Your task to perform on an android device: toggle priority inbox in the gmail app Image 0: 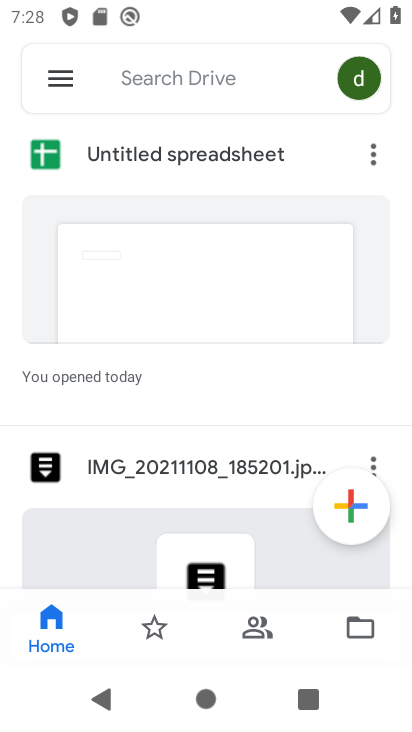
Step 0: press home button
Your task to perform on an android device: toggle priority inbox in the gmail app Image 1: 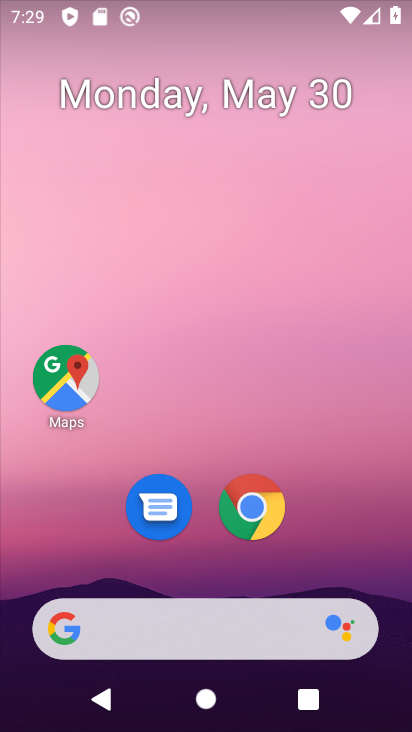
Step 1: drag from (394, 552) to (343, 177)
Your task to perform on an android device: toggle priority inbox in the gmail app Image 2: 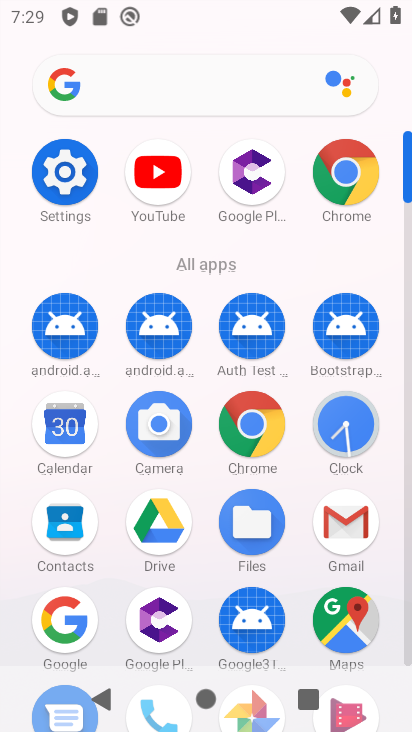
Step 2: click (339, 539)
Your task to perform on an android device: toggle priority inbox in the gmail app Image 3: 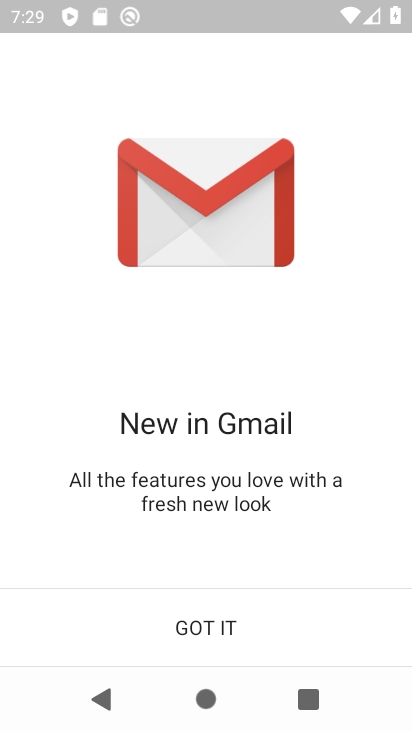
Step 3: click (191, 631)
Your task to perform on an android device: toggle priority inbox in the gmail app Image 4: 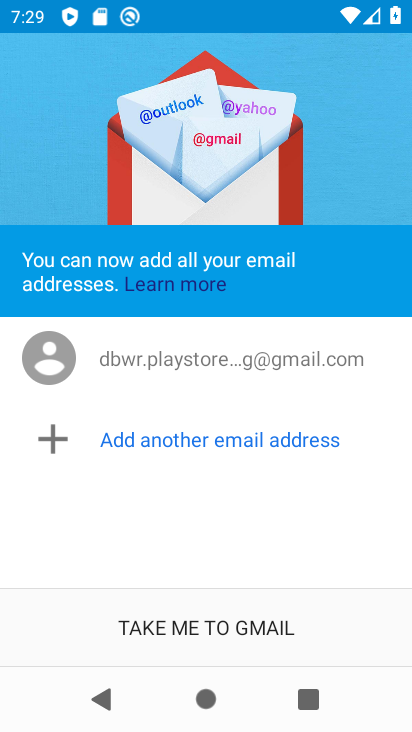
Step 4: click (191, 621)
Your task to perform on an android device: toggle priority inbox in the gmail app Image 5: 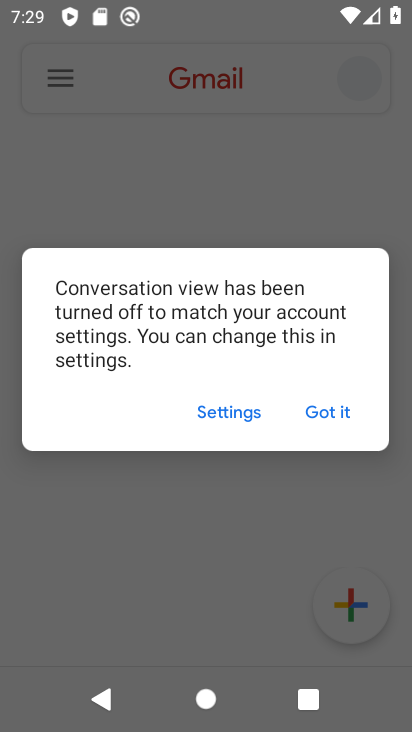
Step 5: click (331, 408)
Your task to perform on an android device: toggle priority inbox in the gmail app Image 6: 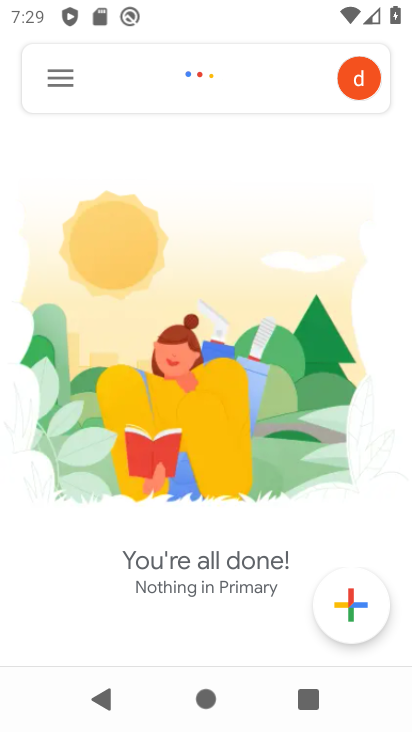
Step 6: click (56, 71)
Your task to perform on an android device: toggle priority inbox in the gmail app Image 7: 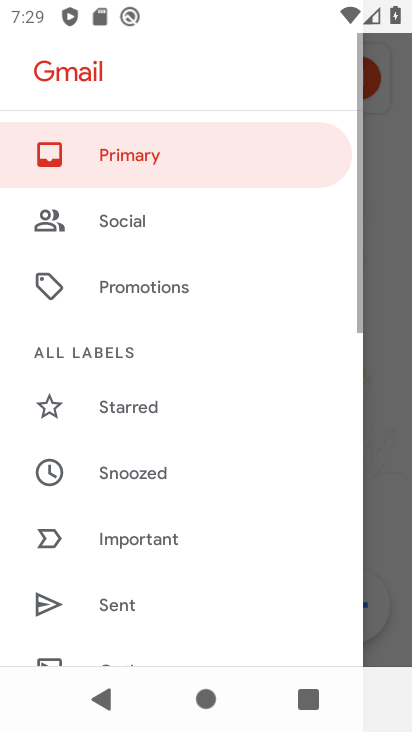
Step 7: drag from (199, 643) to (196, 164)
Your task to perform on an android device: toggle priority inbox in the gmail app Image 8: 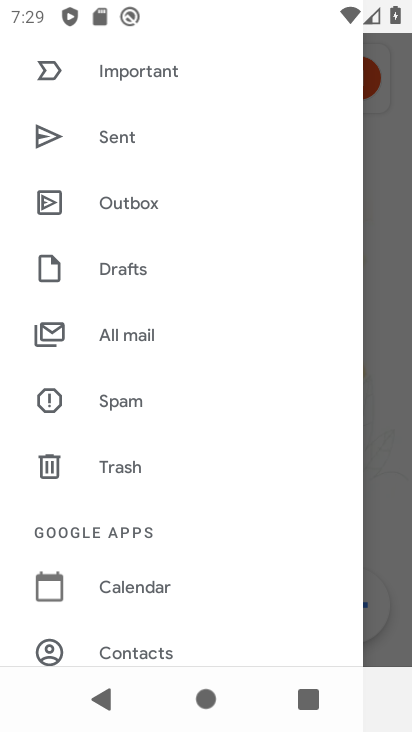
Step 8: drag from (160, 617) to (182, 318)
Your task to perform on an android device: toggle priority inbox in the gmail app Image 9: 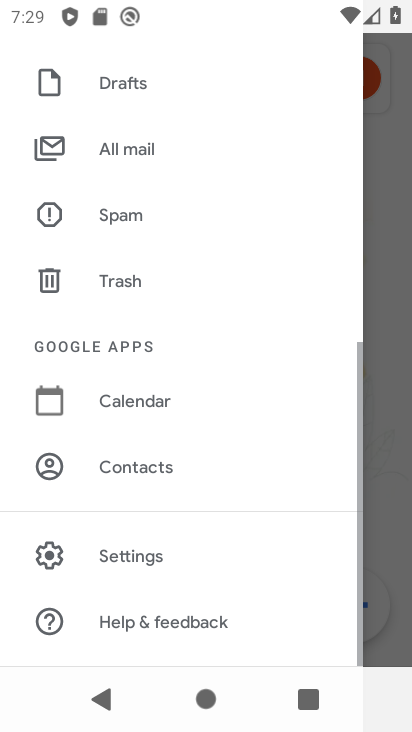
Step 9: click (145, 564)
Your task to perform on an android device: toggle priority inbox in the gmail app Image 10: 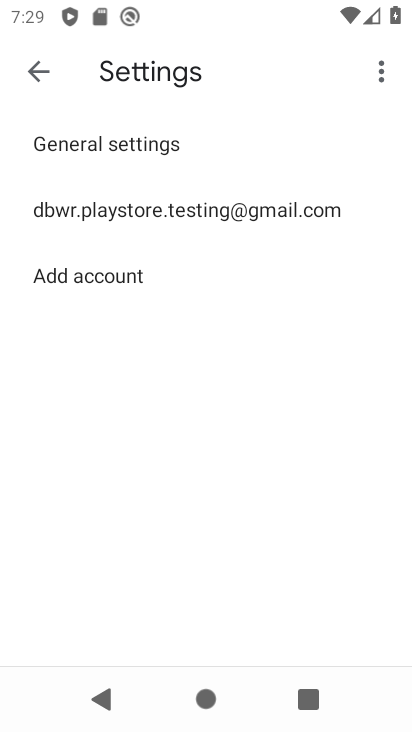
Step 10: click (326, 195)
Your task to perform on an android device: toggle priority inbox in the gmail app Image 11: 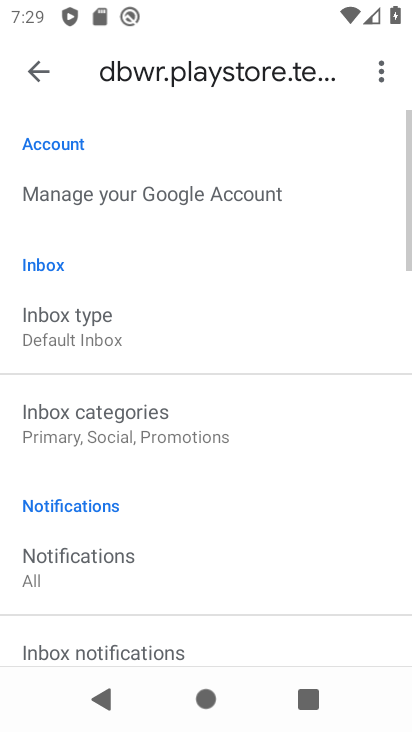
Step 11: click (136, 339)
Your task to perform on an android device: toggle priority inbox in the gmail app Image 12: 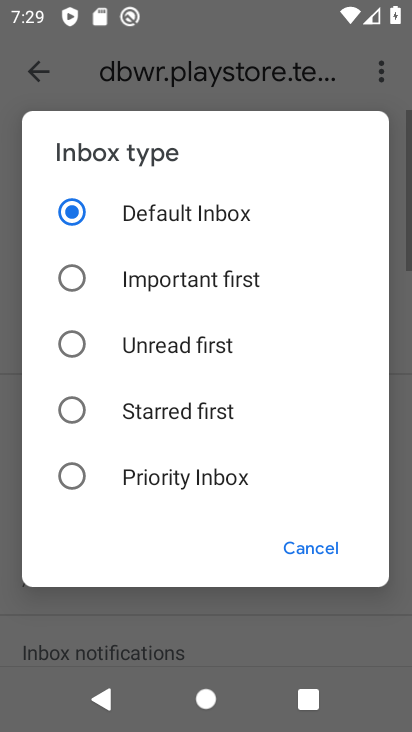
Step 12: click (131, 458)
Your task to perform on an android device: toggle priority inbox in the gmail app Image 13: 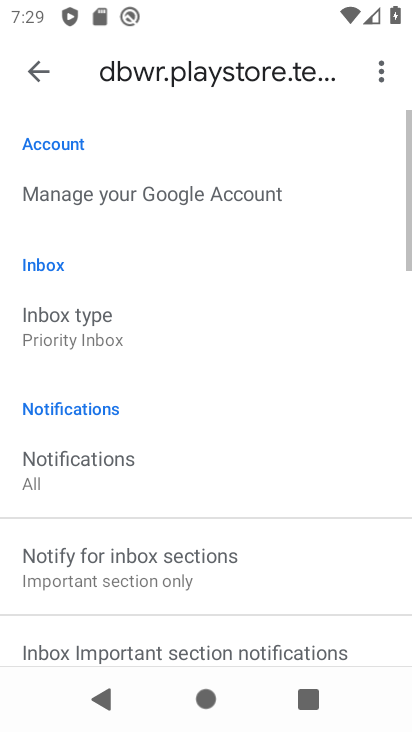
Step 13: task complete